Your task to perform on an android device: Search for pizza restaurants on Maps Image 0: 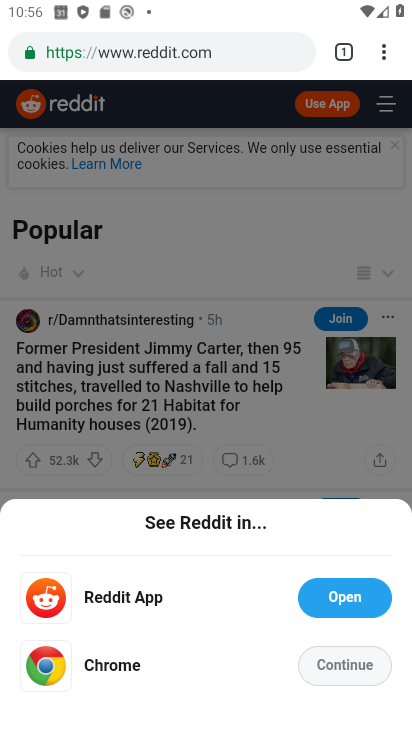
Step 0: press home button
Your task to perform on an android device: Search for pizza restaurants on Maps Image 1: 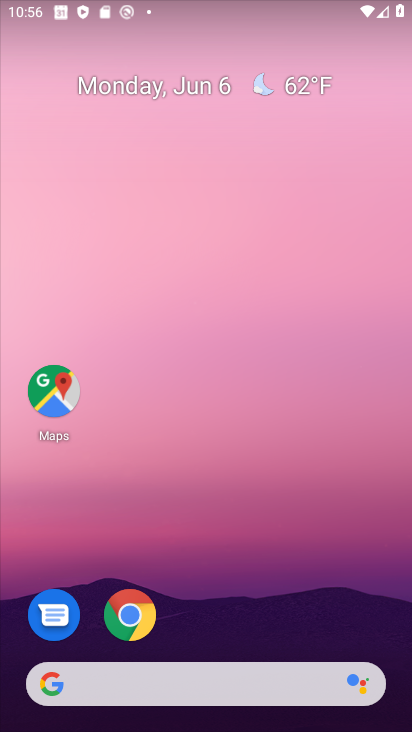
Step 1: click (64, 394)
Your task to perform on an android device: Search for pizza restaurants on Maps Image 2: 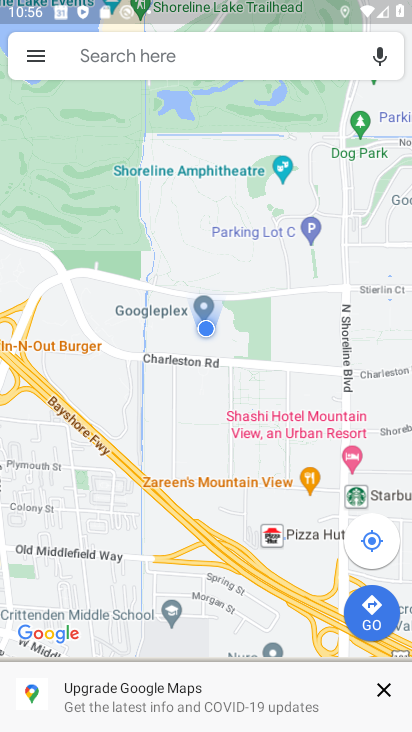
Step 2: click (398, 159)
Your task to perform on an android device: Search for pizza restaurants on Maps Image 3: 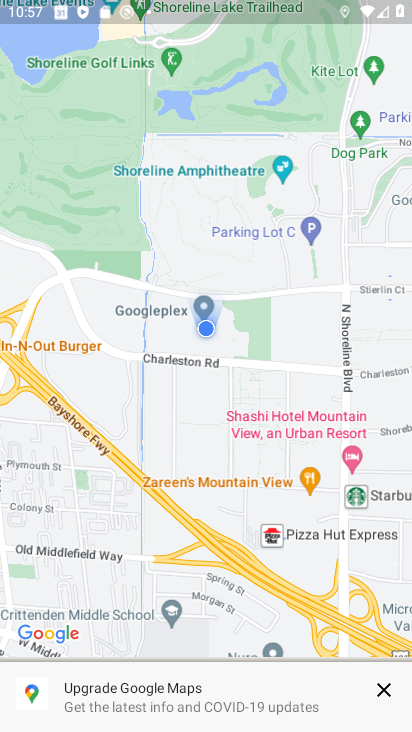
Step 3: drag from (286, 255) to (328, 507)
Your task to perform on an android device: Search for pizza restaurants on Maps Image 4: 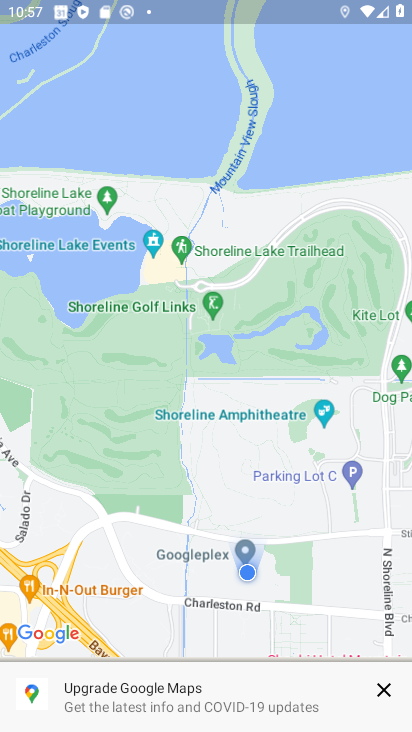
Step 4: click (376, 688)
Your task to perform on an android device: Search for pizza restaurants on Maps Image 5: 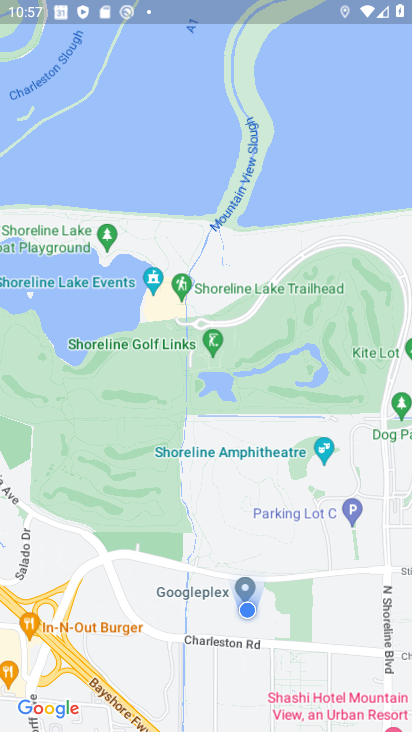
Step 5: click (129, 461)
Your task to perform on an android device: Search for pizza restaurants on Maps Image 6: 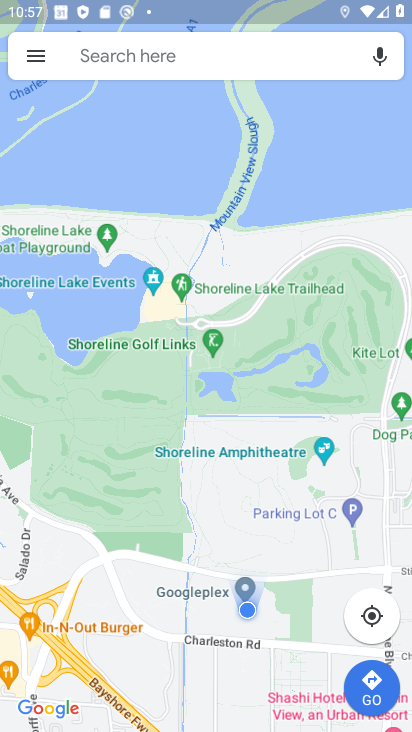
Step 6: click (173, 60)
Your task to perform on an android device: Search for pizza restaurants on Maps Image 7: 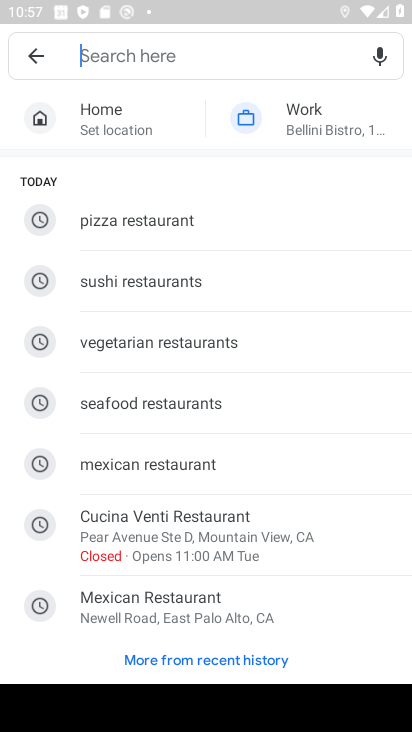
Step 7: type "pizza"
Your task to perform on an android device: Search for pizza restaurants on Maps Image 8: 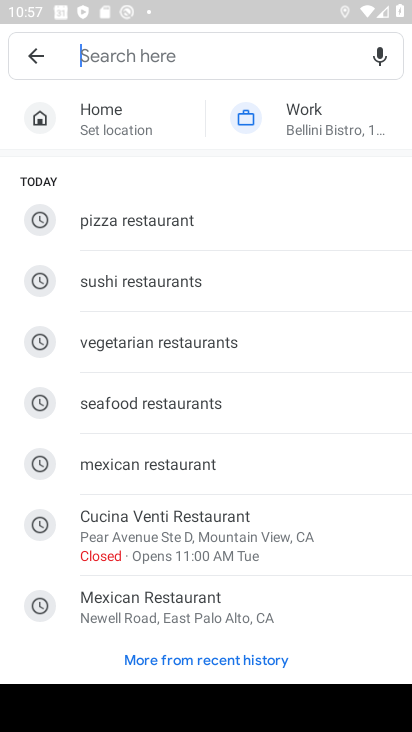
Step 8: click (111, 209)
Your task to perform on an android device: Search for pizza restaurants on Maps Image 9: 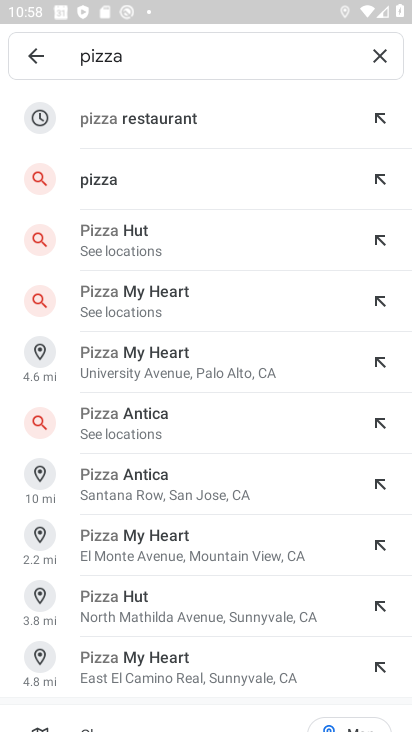
Step 9: click (223, 112)
Your task to perform on an android device: Search for pizza restaurants on Maps Image 10: 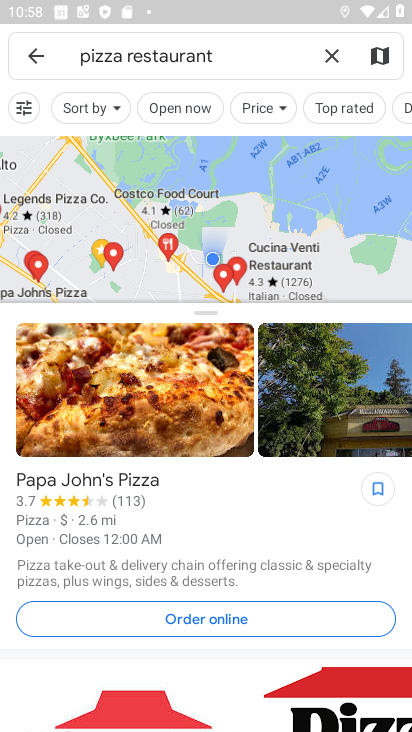
Step 10: task complete